Your task to perform on an android device: check storage Image 0: 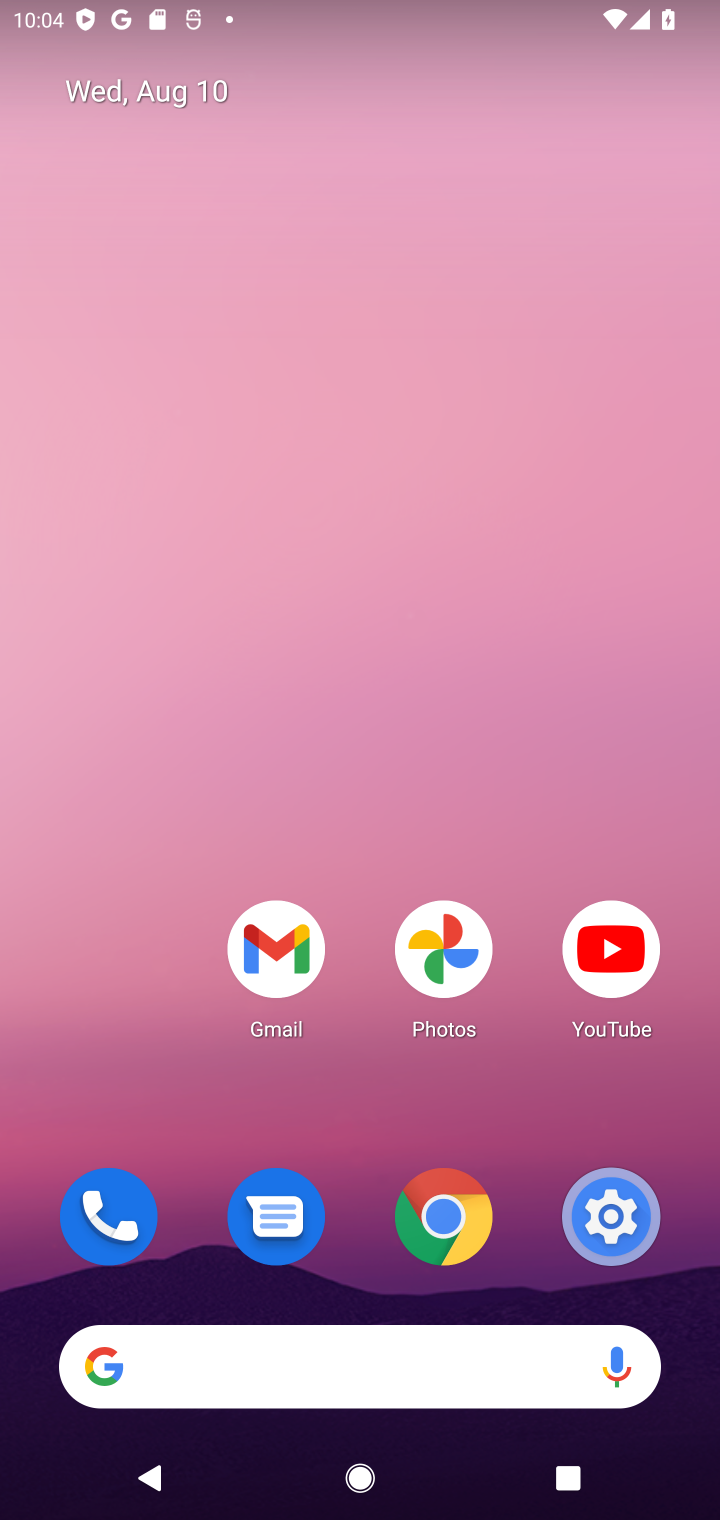
Step 0: drag from (70, 1518) to (366, 313)
Your task to perform on an android device: check storage Image 1: 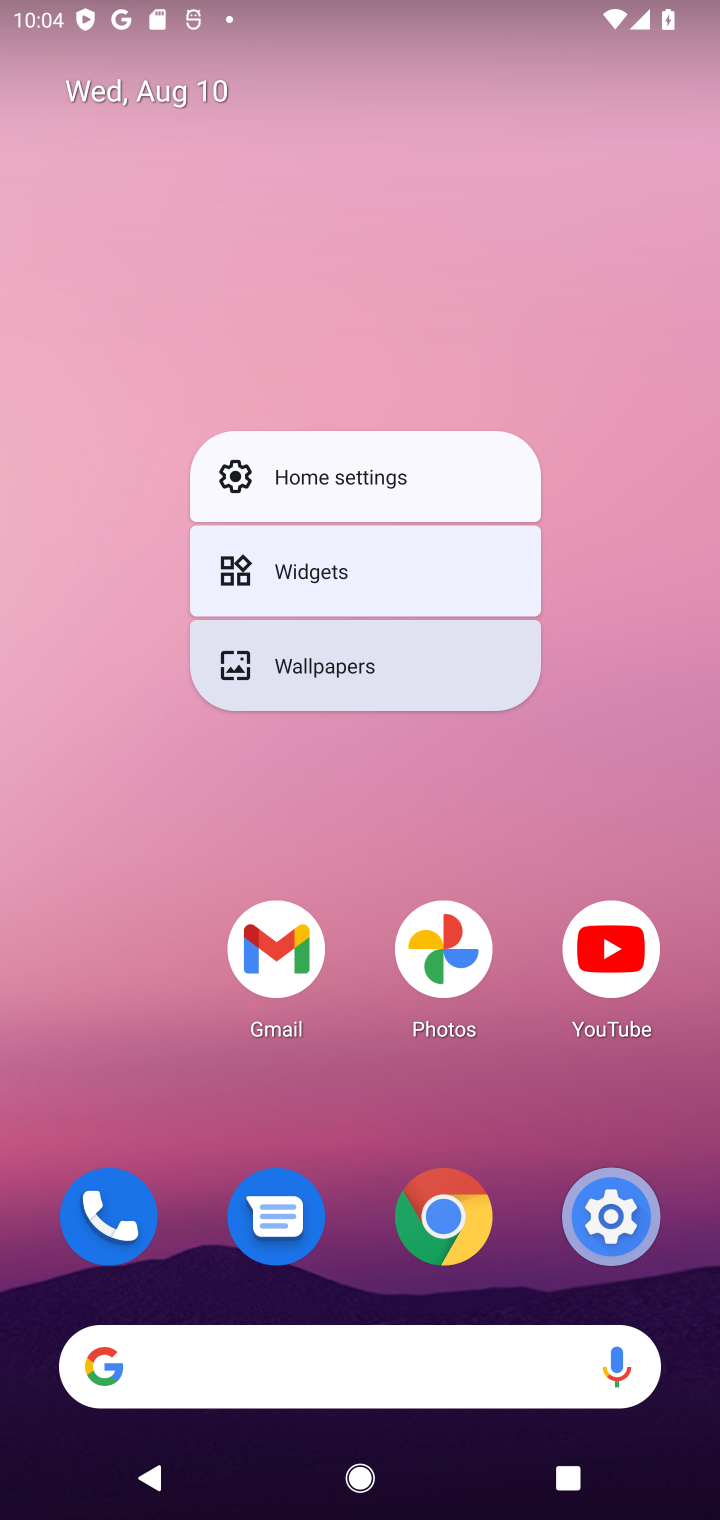
Step 1: click (61, 1054)
Your task to perform on an android device: check storage Image 2: 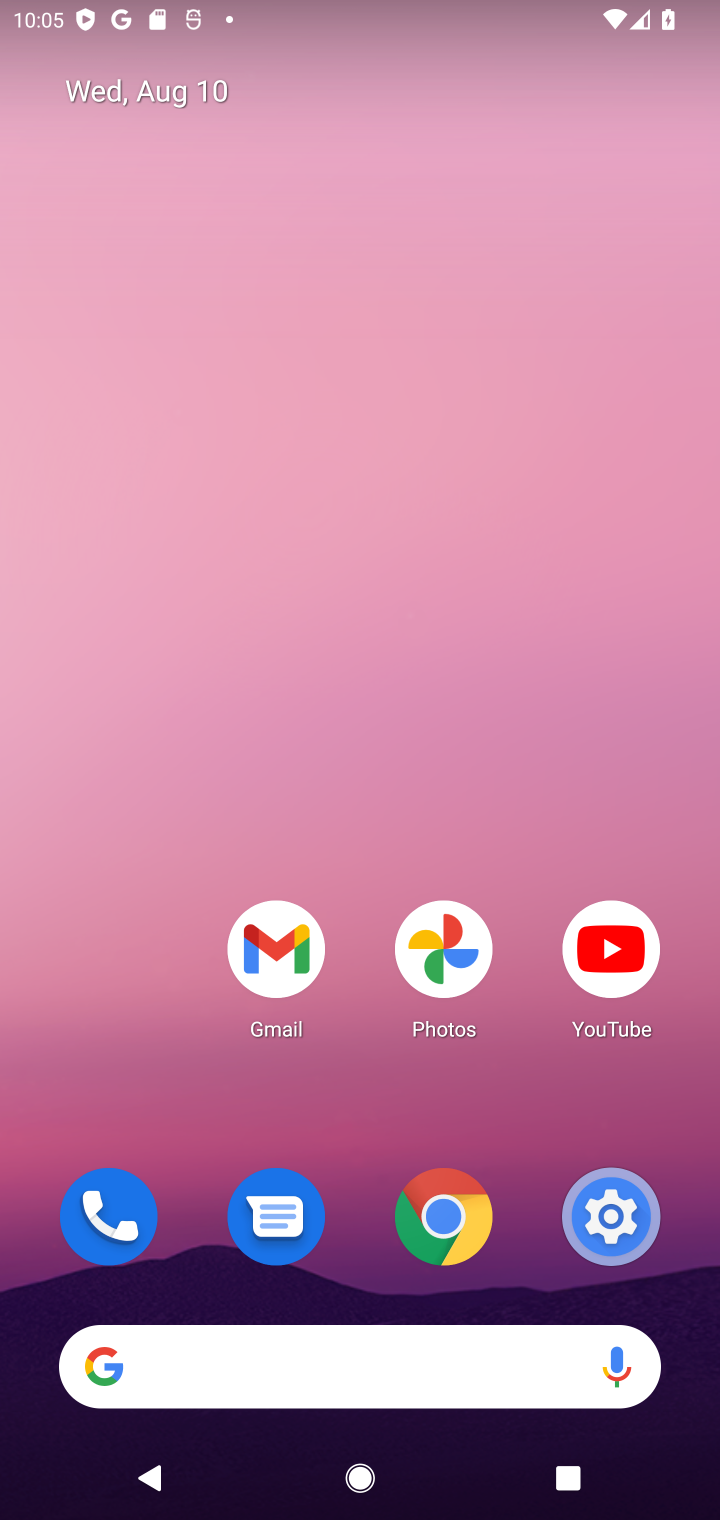
Step 2: drag from (24, 1313) to (454, 333)
Your task to perform on an android device: check storage Image 3: 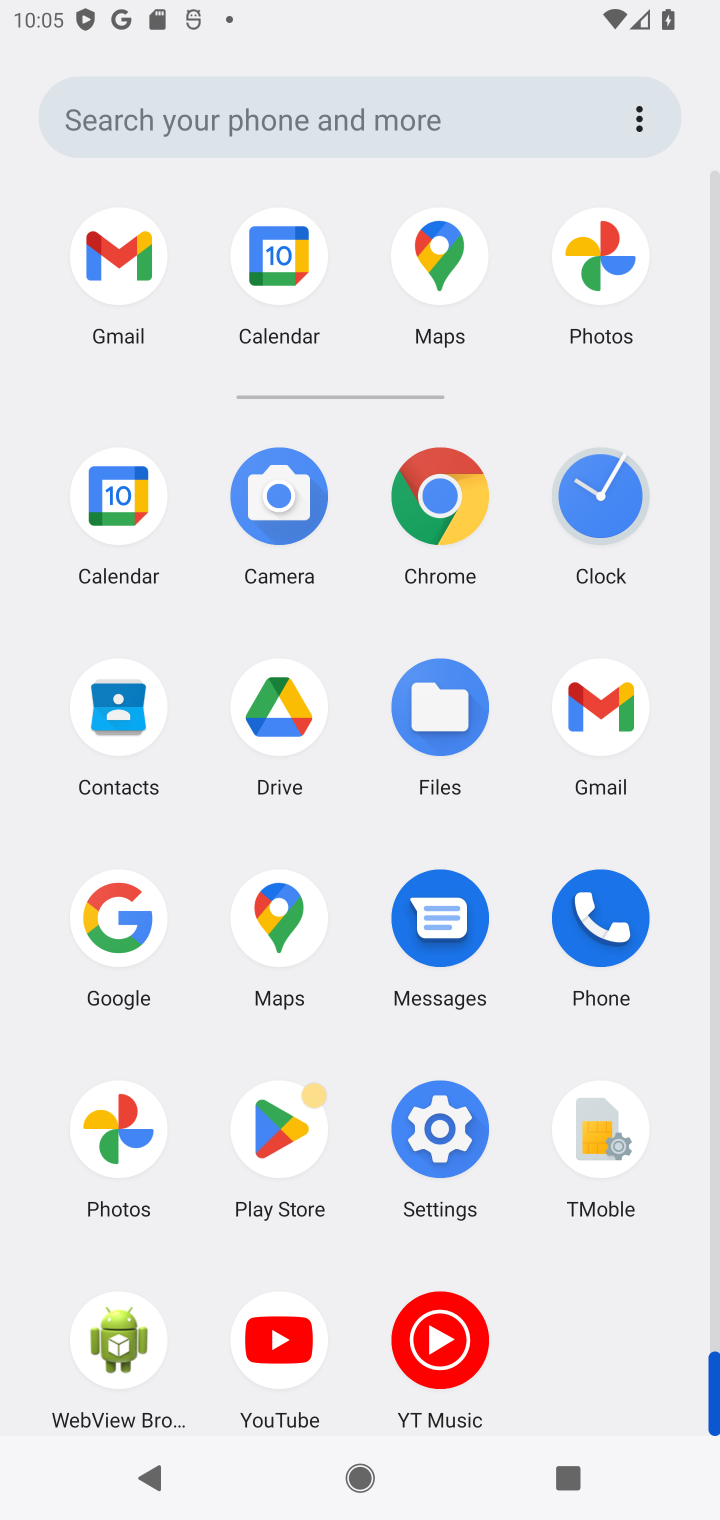
Step 3: click (419, 1139)
Your task to perform on an android device: check storage Image 4: 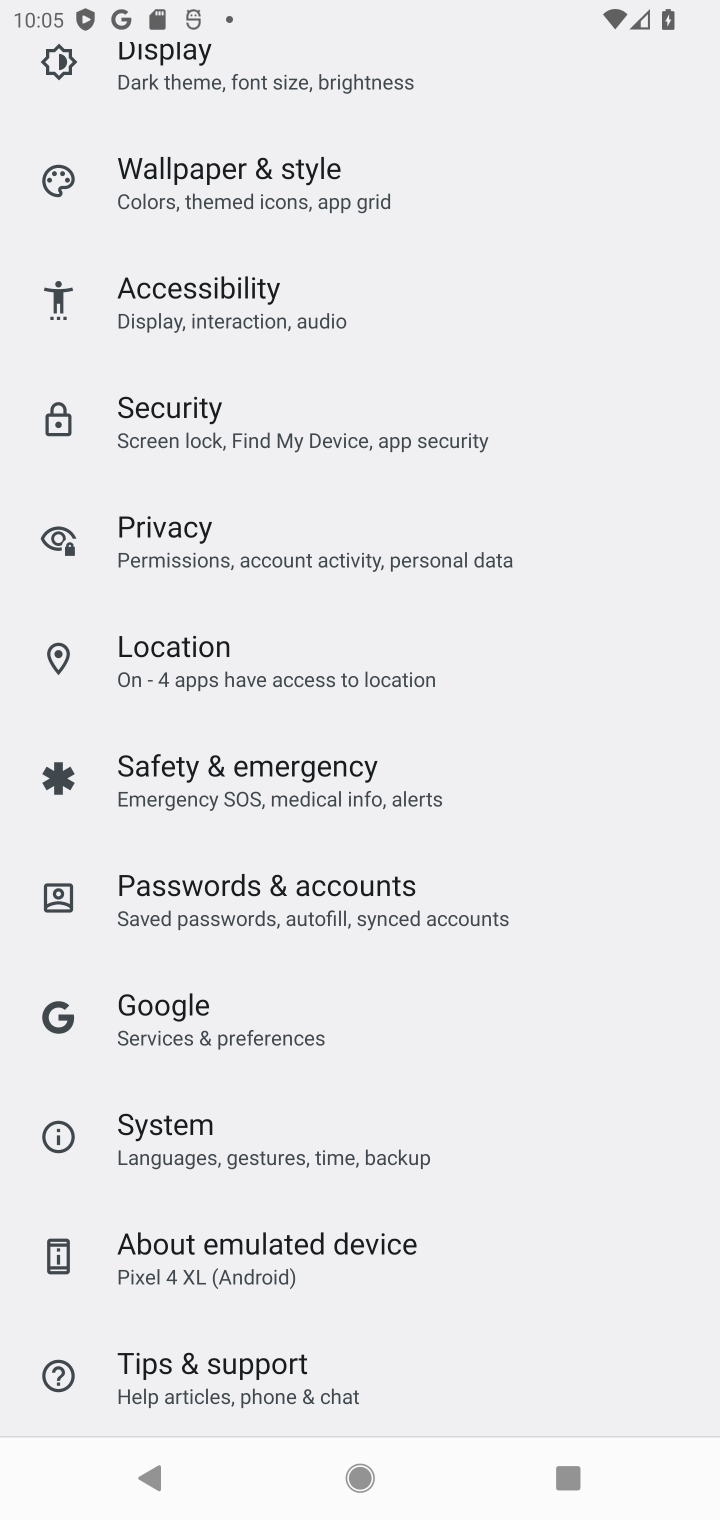
Step 4: drag from (308, 265) to (309, 1154)
Your task to perform on an android device: check storage Image 5: 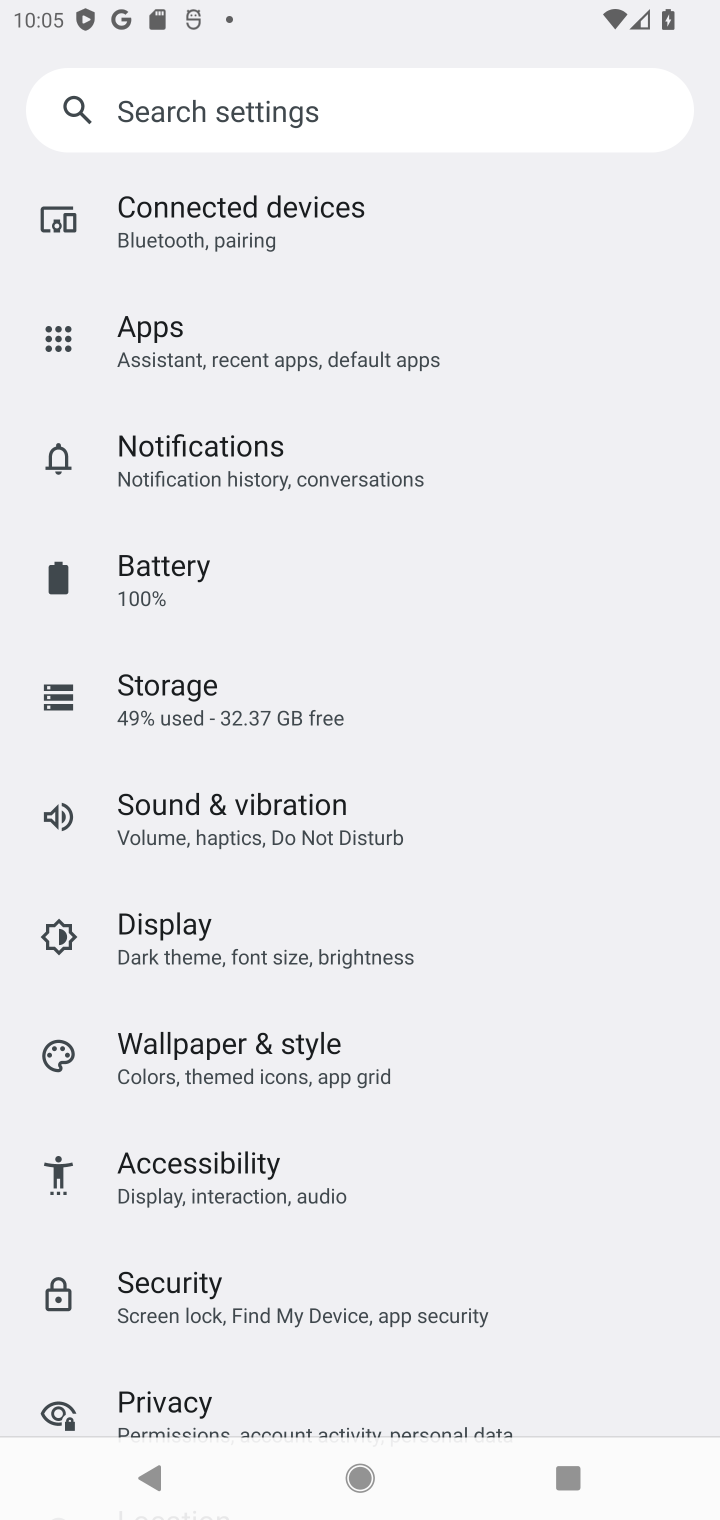
Step 5: click (223, 718)
Your task to perform on an android device: check storage Image 6: 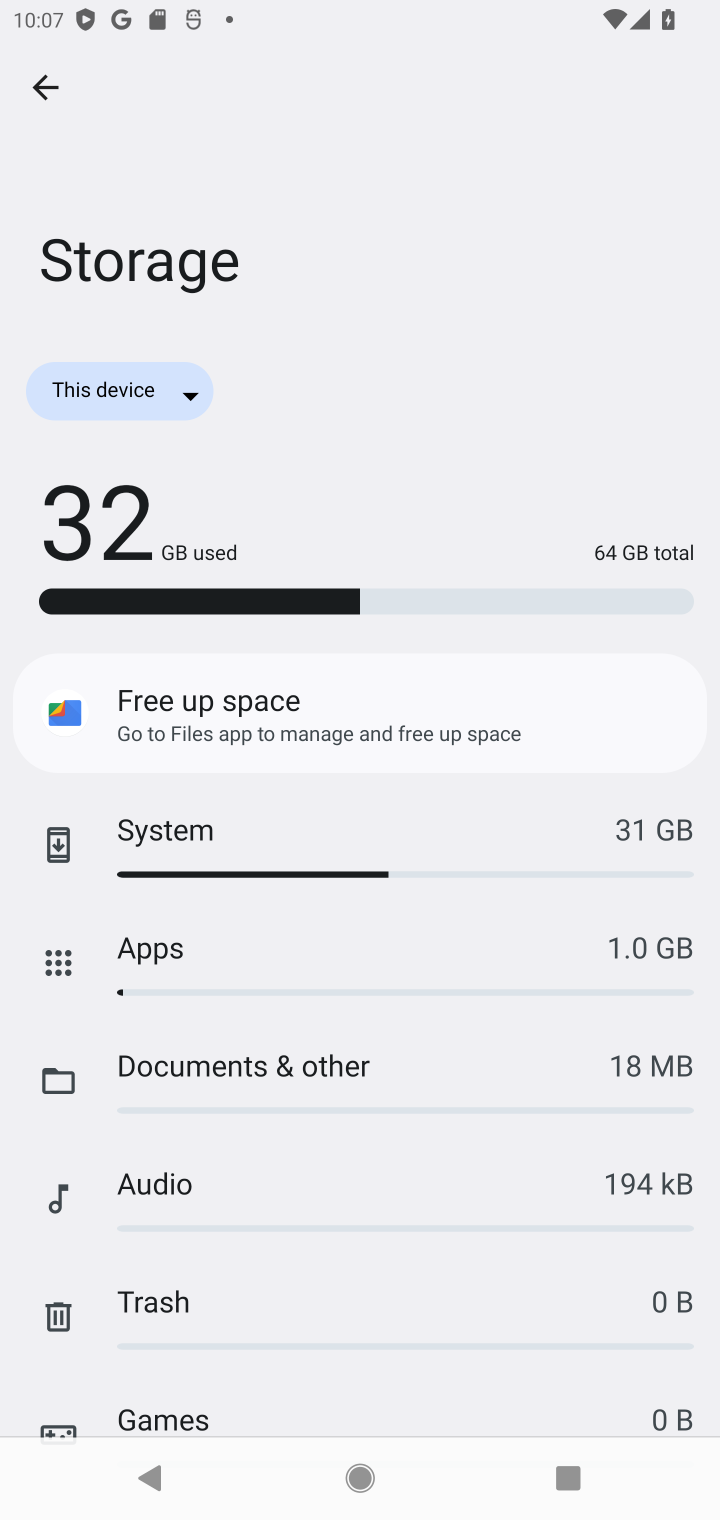
Step 6: task complete